Your task to perform on an android device: Open privacy settings Image 0: 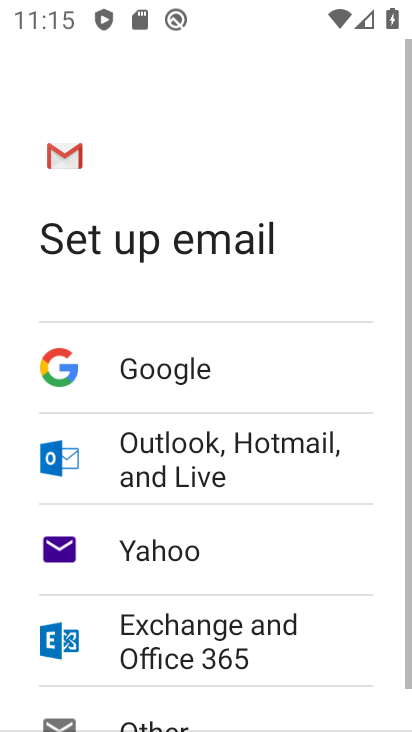
Step 0: press home button
Your task to perform on an android device: Open privacy settings Image 1: 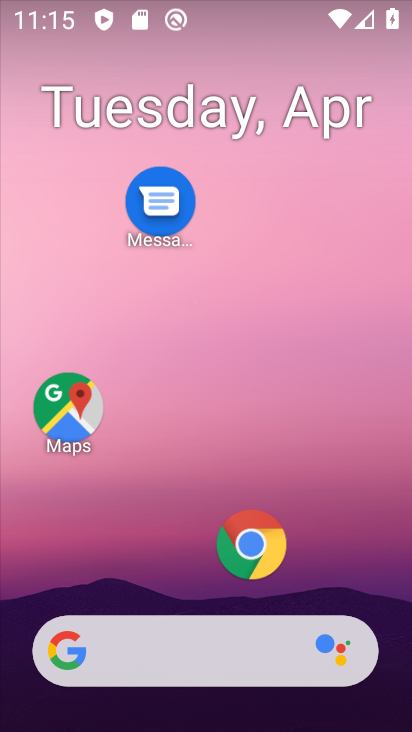
Step 1: drag from (159, 553) to (279, 34)
Your task to perform on an android device: Open privacy settings Image 2: 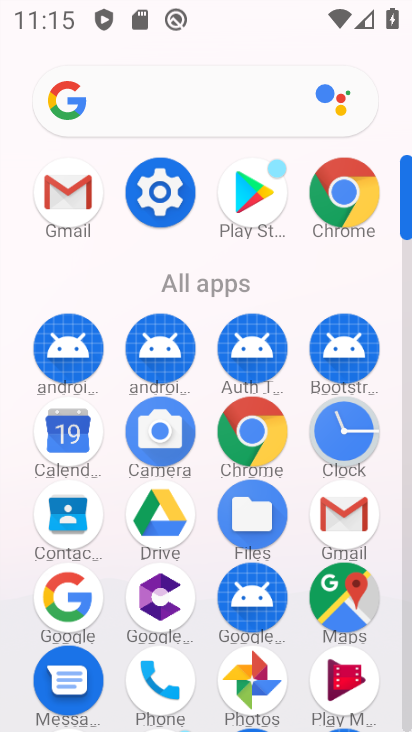
Step 2: click (161, 203)
Your task to perform on an android device: Open privacy settings Image 3: 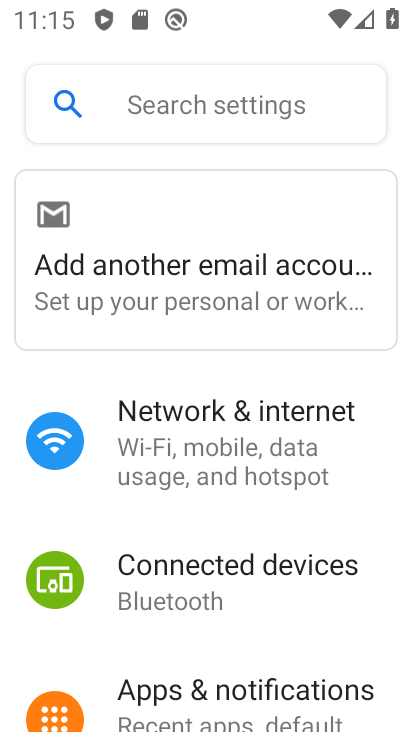
Step 3: drag from (200, 600) to (246, 206)
Your task to perform on an android device: Open privacy settings Image 4: 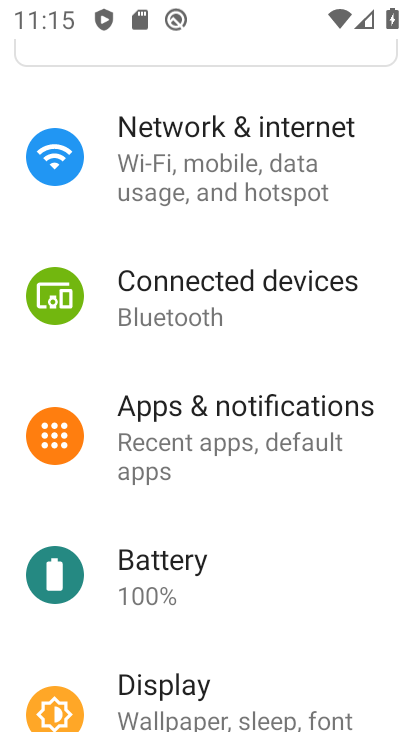
Step 4: drag from (199, 575) to (265, 137)
Your task to perform on an android device: Open privacy settings Image 5: 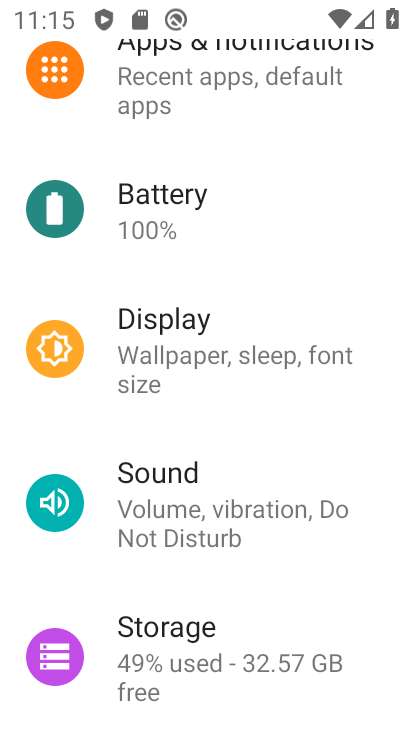
Step 5: drag from (186, 560) to (260, 103)
Your task to perform on an android device: Open privacy settings Image 6: 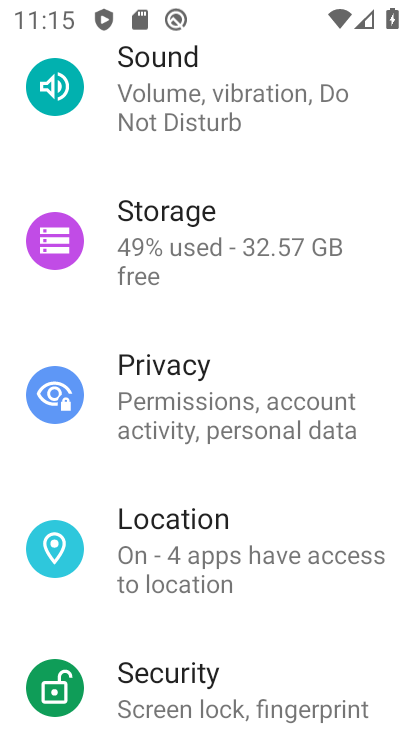
Step 6: click (180, 419)
Your task to perform on an android device: Open privacy settings Image 7: 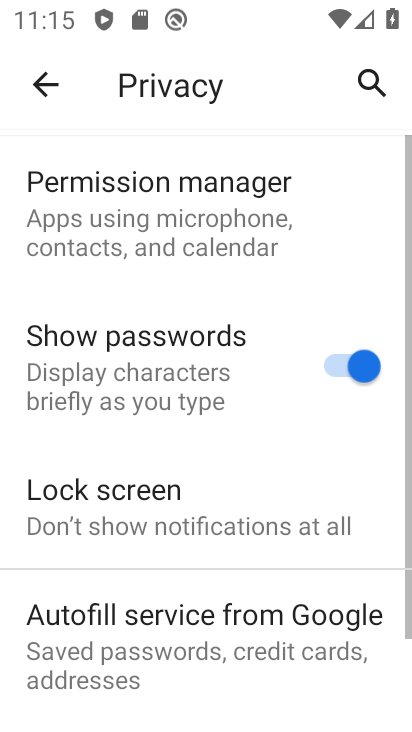
Step 7: task complete